Your task to perform on an android device: open chrome and create a bookmark for the current page Image 0: 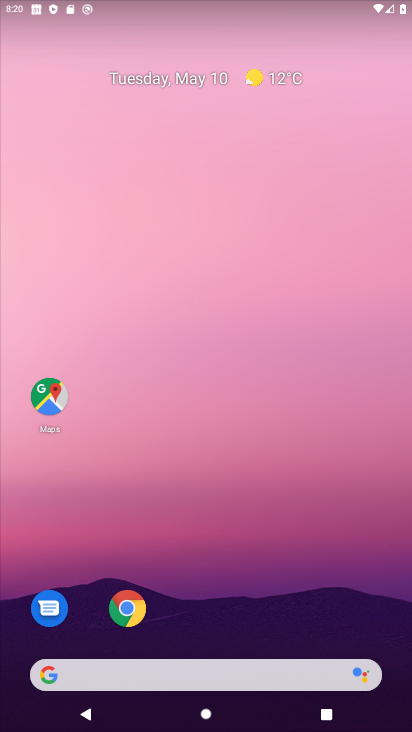
Step 0: click (281, 520)
Your task to perform on an android device: open chrome and create a bookmark for the current page Image 1: 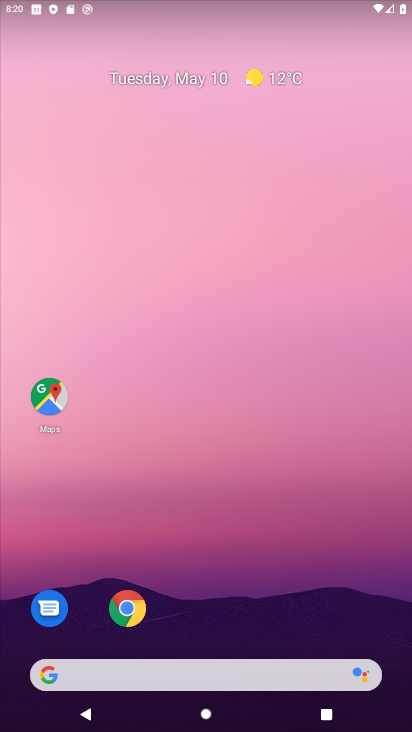
Step 1: click (140, 605)
Your task to perform on an android device: open chrome and create a bookmark for the current page Image 2: 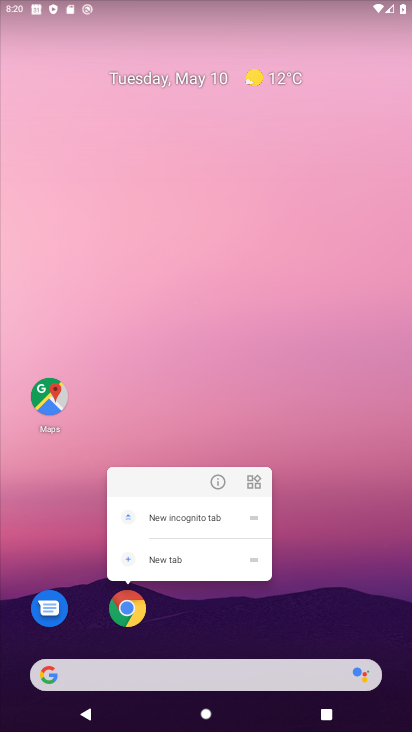
Step 2: click (140, 605)
Your task to perform on an android device: open chrome and create a bookmark for the current page Image 3: 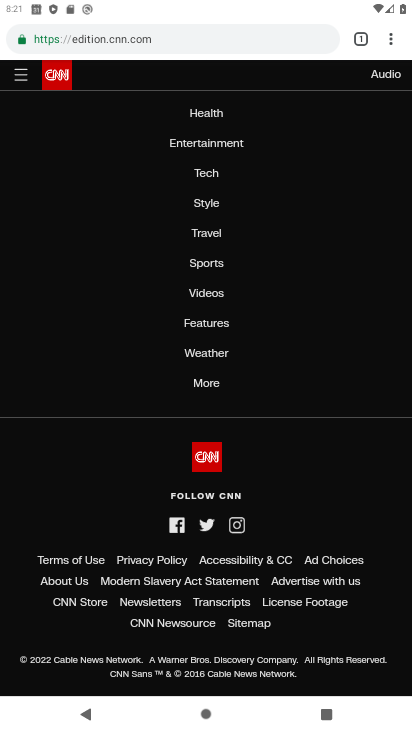
Step 3: click (389, 39)
Your task to perform on an android device: open chrome and create a bookmark for the current page Image 4: 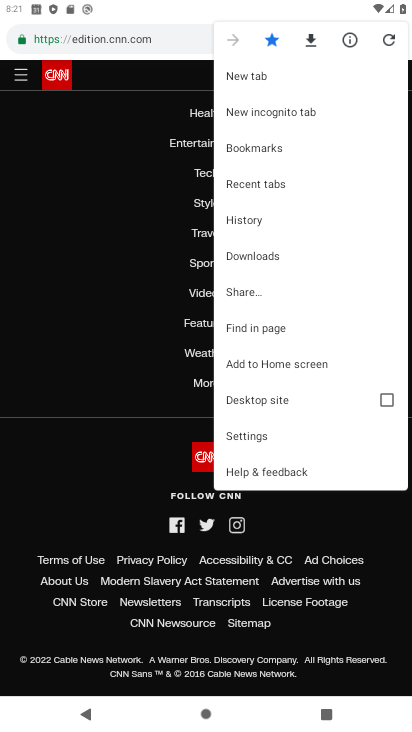
Step 4: task complete